Your task to perform on an android device: Open the music app Image 0: 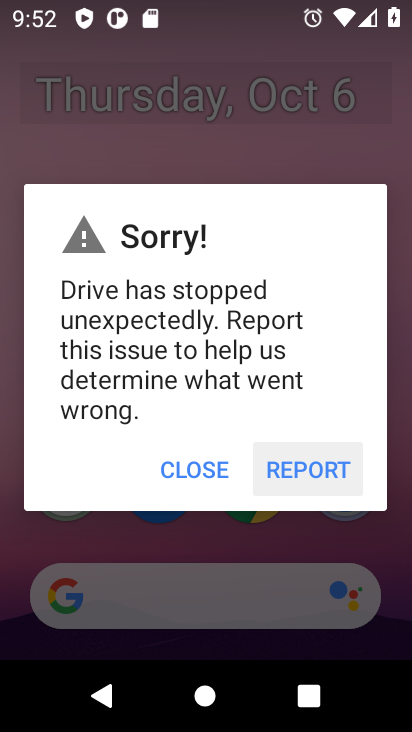
Step 0: press home button
Your task to perform on an android device: Open the music app Image 1: 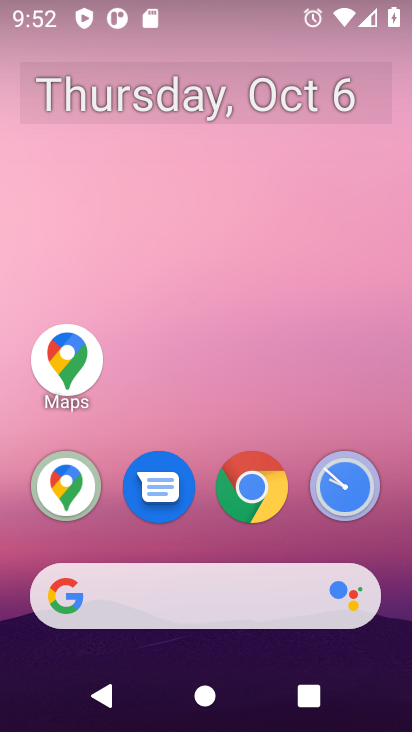
Step 1: drag from (238, 556) to (188, 157)
Your task to perform on an android device: Open the music app Image 2: 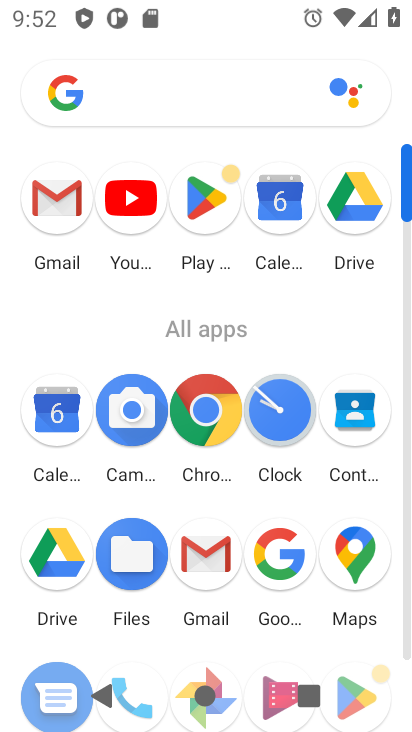
Step 2: drag from (244, 574) to (252, 203)
Your task to perform on an android device: Open the music app Image 3: 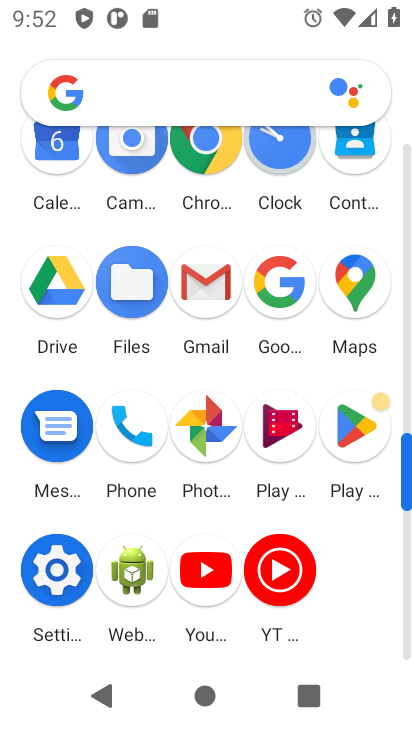
Step 3: drag from (207, 521) to (239, 196)
Your task to perform on an android device: Open the music app Image 4: 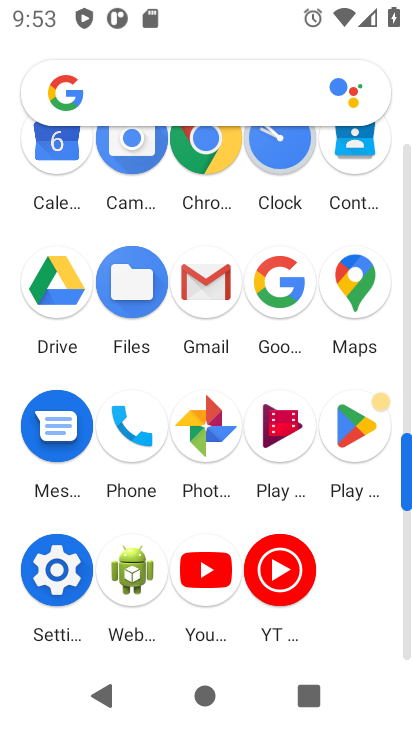
Step 4: click (345, 432)
Your task to perform on an android device: Open the music app Image 5: 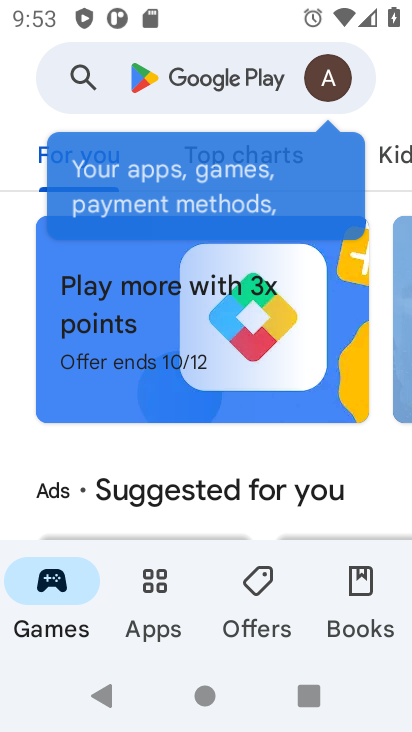
Step 5: click (224, 66)
Your task to perform on an android device: Open the music app Image 6: 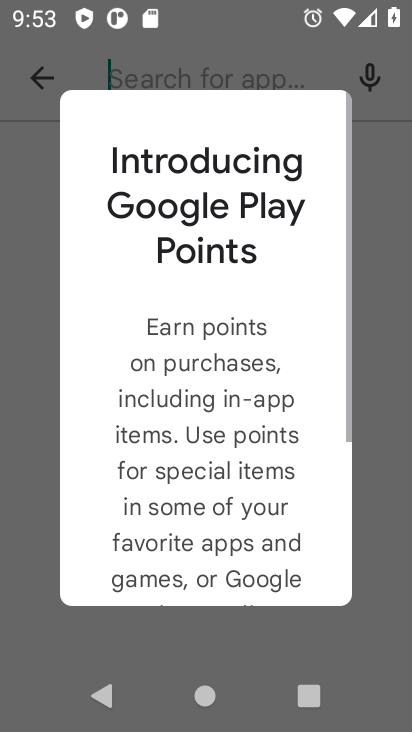
Step 6: click (191, 72)
Your task to perform on an android device: Open the music app Image 7: 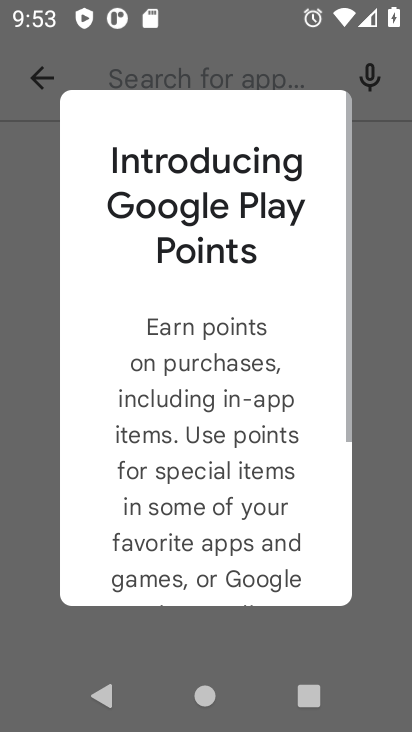
Step 7: press back button
Your task to perform on an android device: Open the music app Image 8: 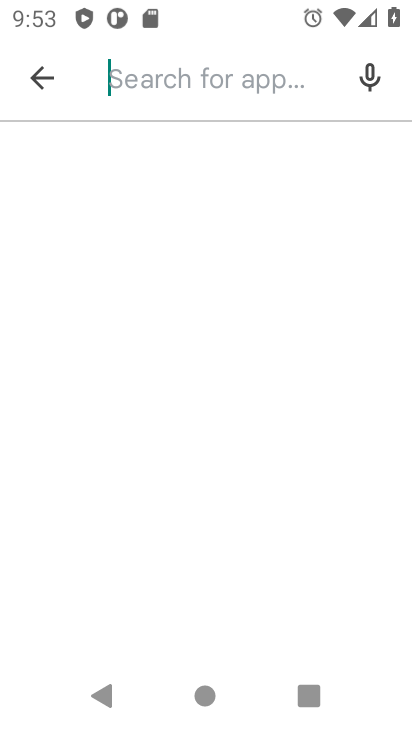
Step 8: type "music app"
Your task to perform on an android device: Open the music app Image 9: 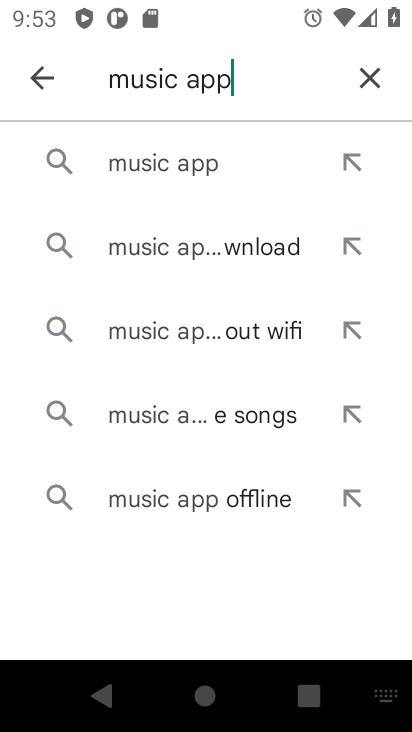
Step 9: press enter
Your task to perform on an android device: Open the music app Image 10: 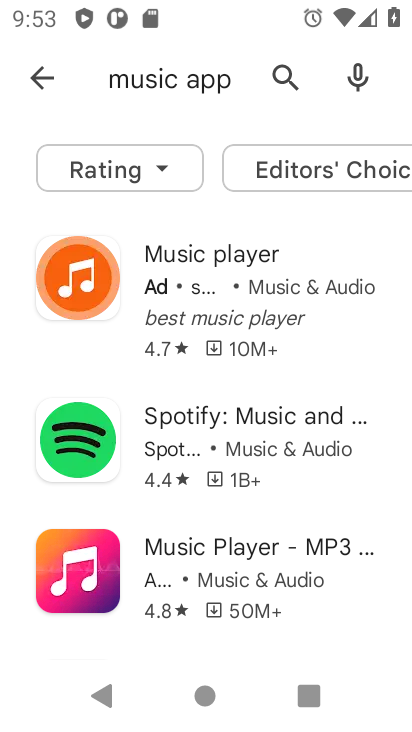
Step 10: task complete